Your task to perform on an android device: turn off notifications settings in the gmail app Image 0: 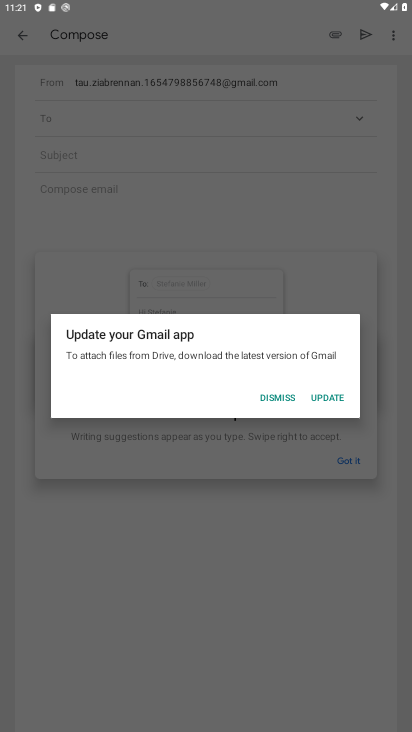
Step 0: press back button
Your task to perform on an android device: turn off notifications settings in the gmail app Image 1: 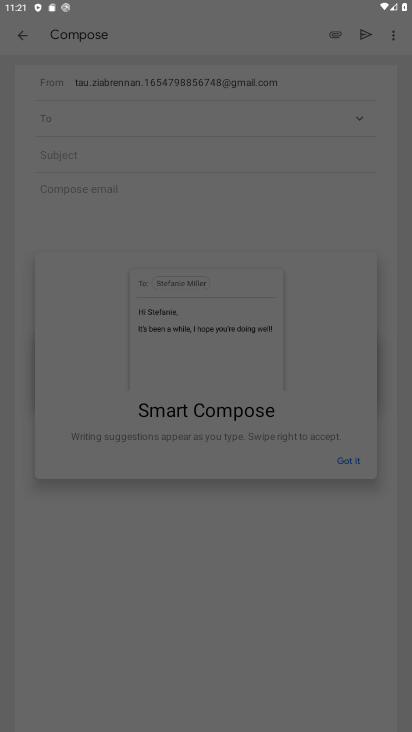
Step 1: press back button
Your task to perform on an android device: turn off notifications settings in the gmail app Image 2: 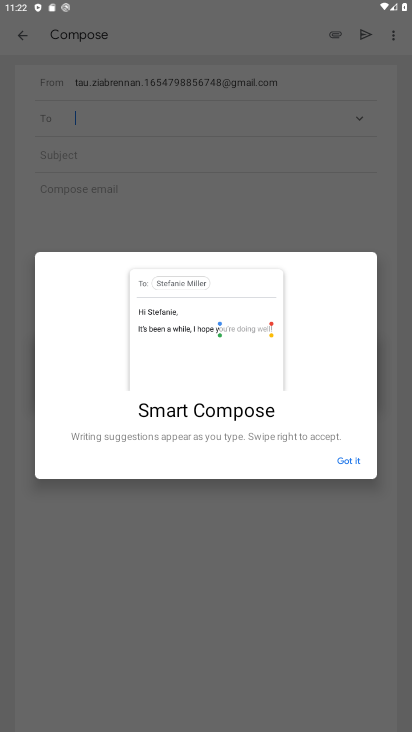
Step 2: press home button
Your task to perform on an android device: turn off notifications settings in the gmail app Image 3: 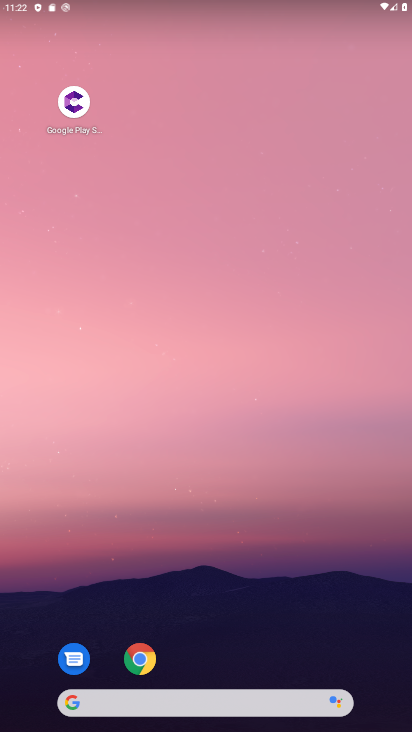
Step 3: drag from (23, 504) to (397, 378)
Your task to perform on an android device: turn off notifications settings in the gmail app Image 4: 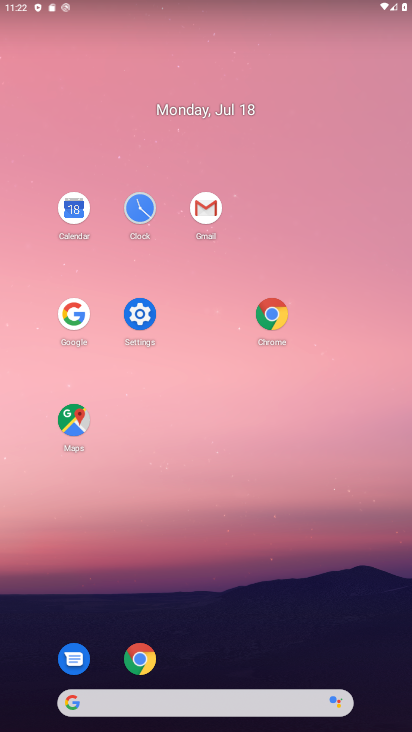
Step 4: click (211, 214)
Your task to perform on an android device: turn off notifications settings in the gmail app Image 5: 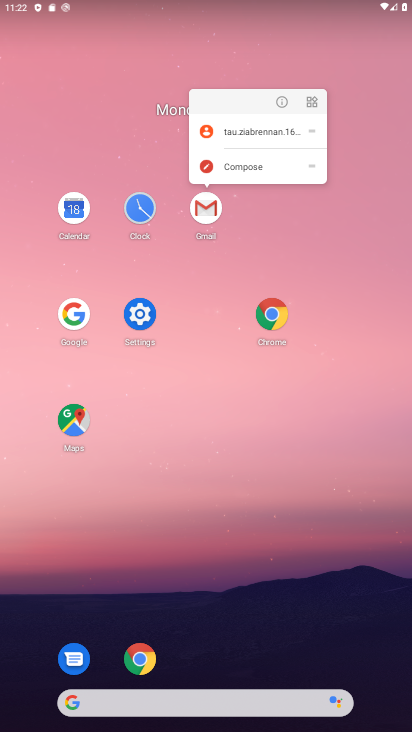
Step 5: click (211, 215)
Your task to perform on an android device: turn off notifications settings in the gmail app Image 6: 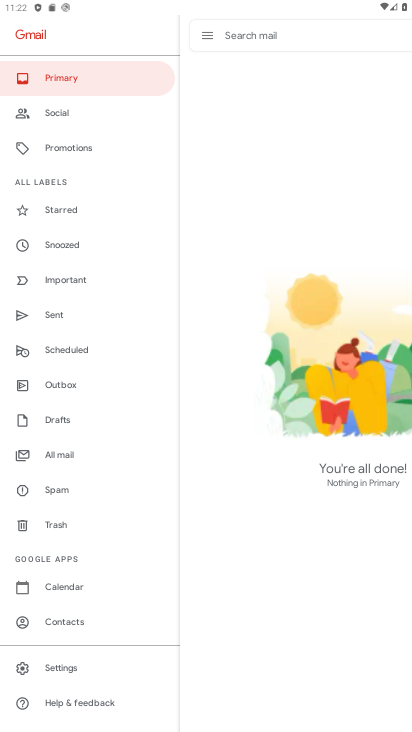
Step 6: click (64, 672)
Your task to perform on an android device: turn off notifications settings in the gmail app Image 7: 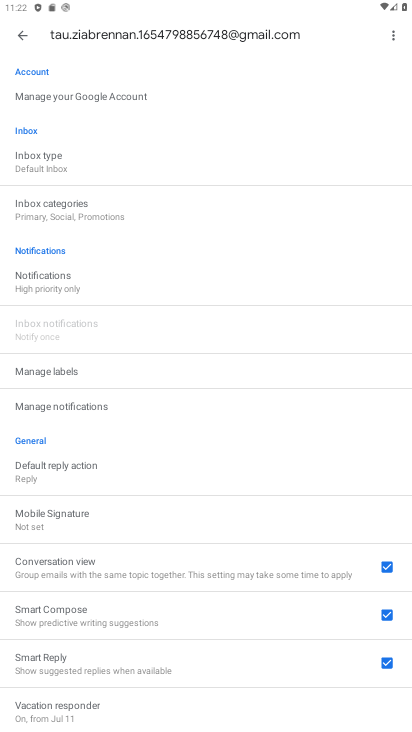
Step 7: click (103, 290)
Your task to perform on an android device: turn off notifications settings in the gmail app Image 8: 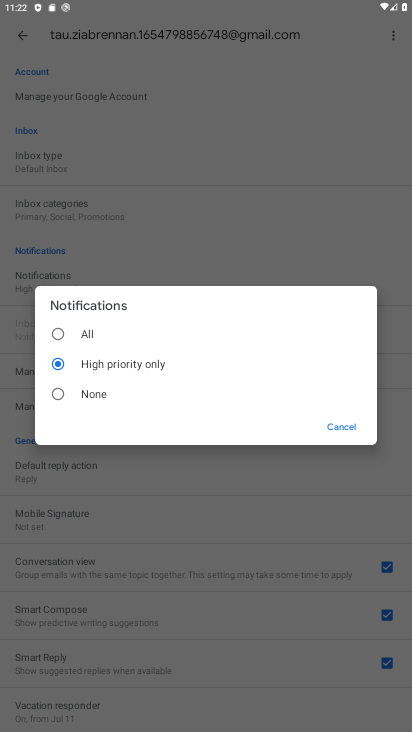
Step 8: click (85, 387)
Your task to perform on an android device: turn off notifications settings in the gmail app Image 9: 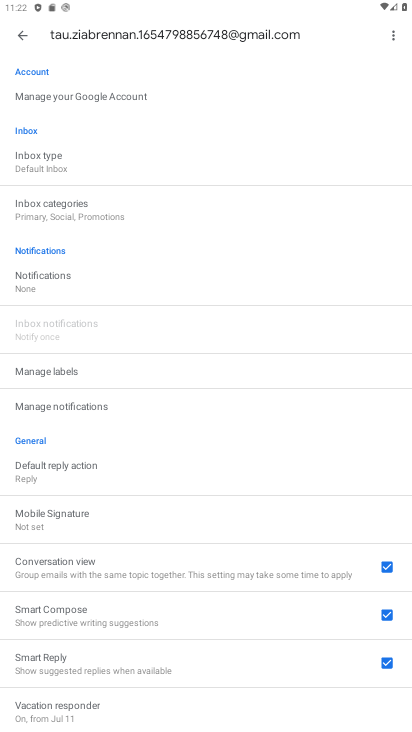
Step 9: task complete